Your task to perform on an android device: turn smart compose on in the gmail app Image 0: 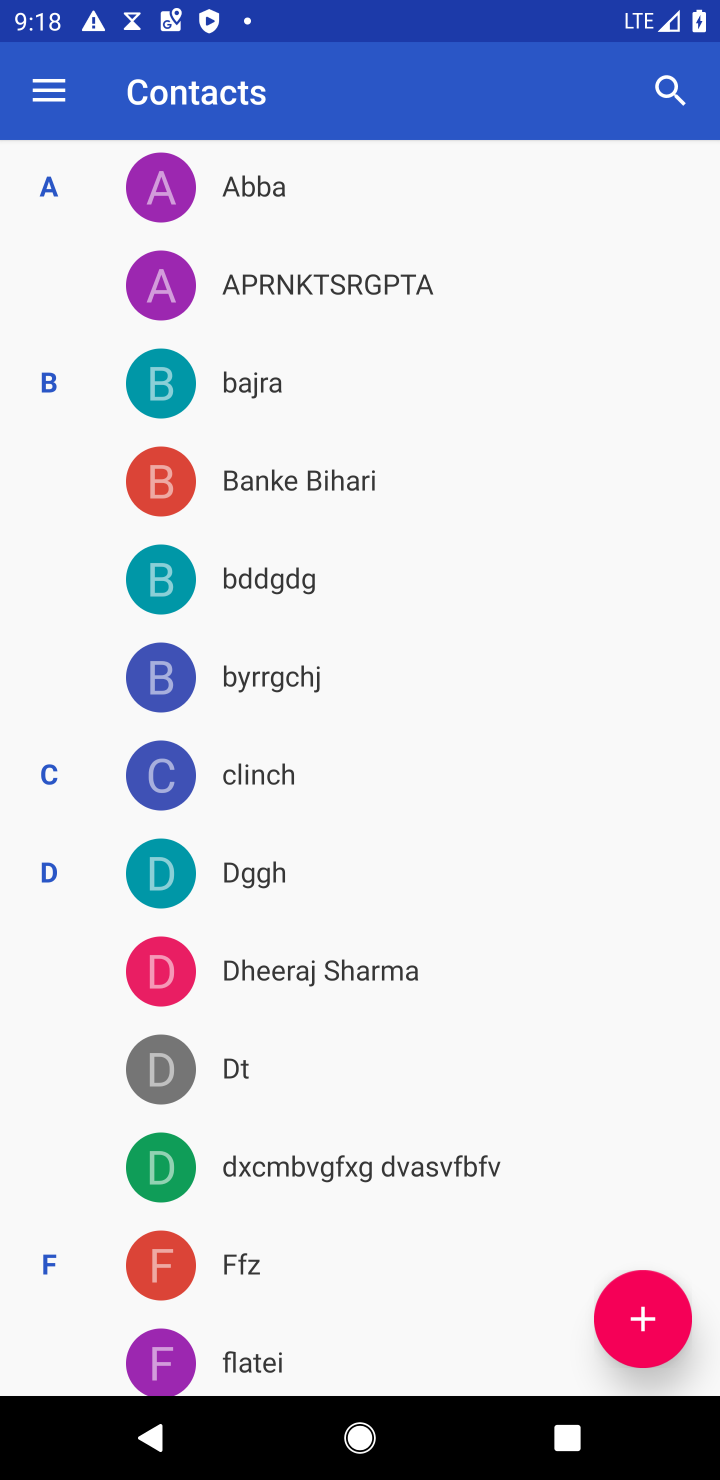
Step 0: press back button
Your task to perform on an android device: turn smart compose on in the gmail app Image 1: 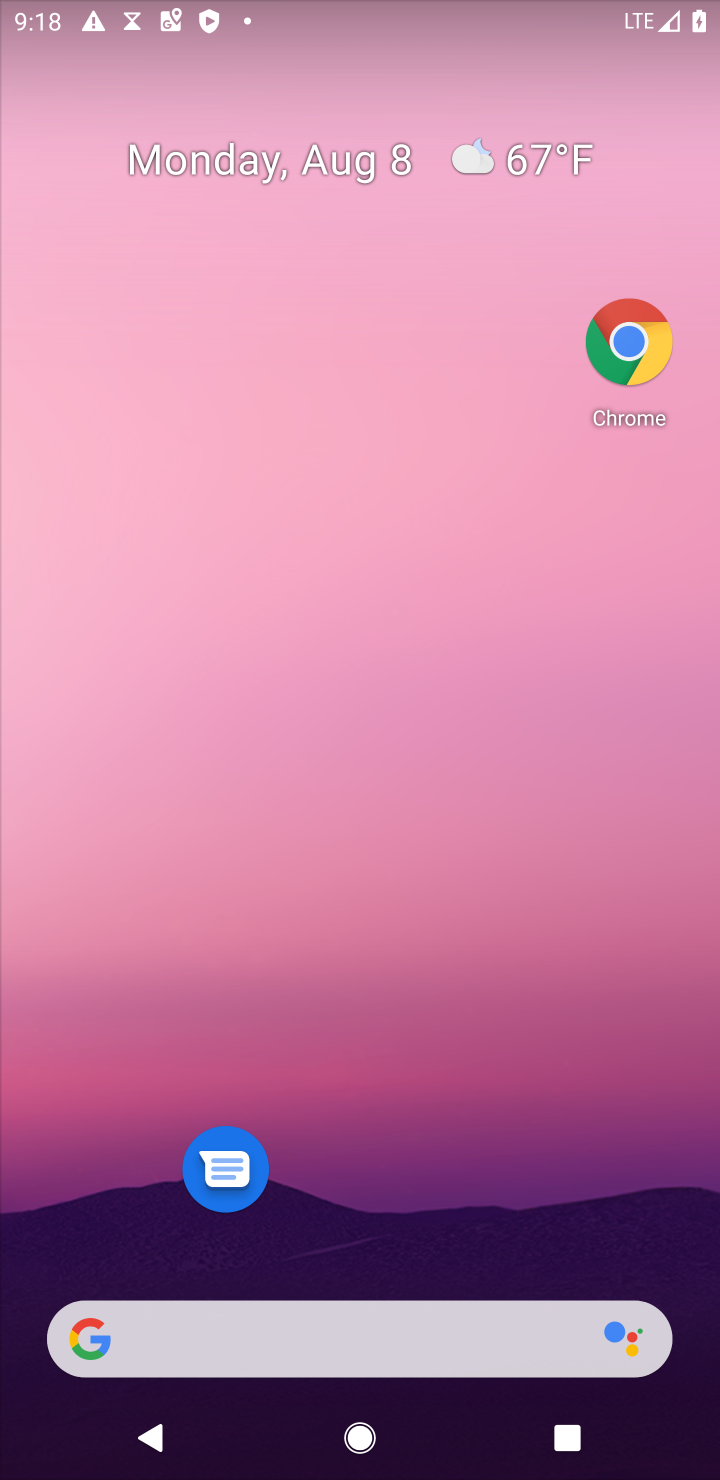
Step 1: drag from (430, 1163) to (546, 230)
Your task to perform on an android device: turn smart compose on in the gmail app Image 2: 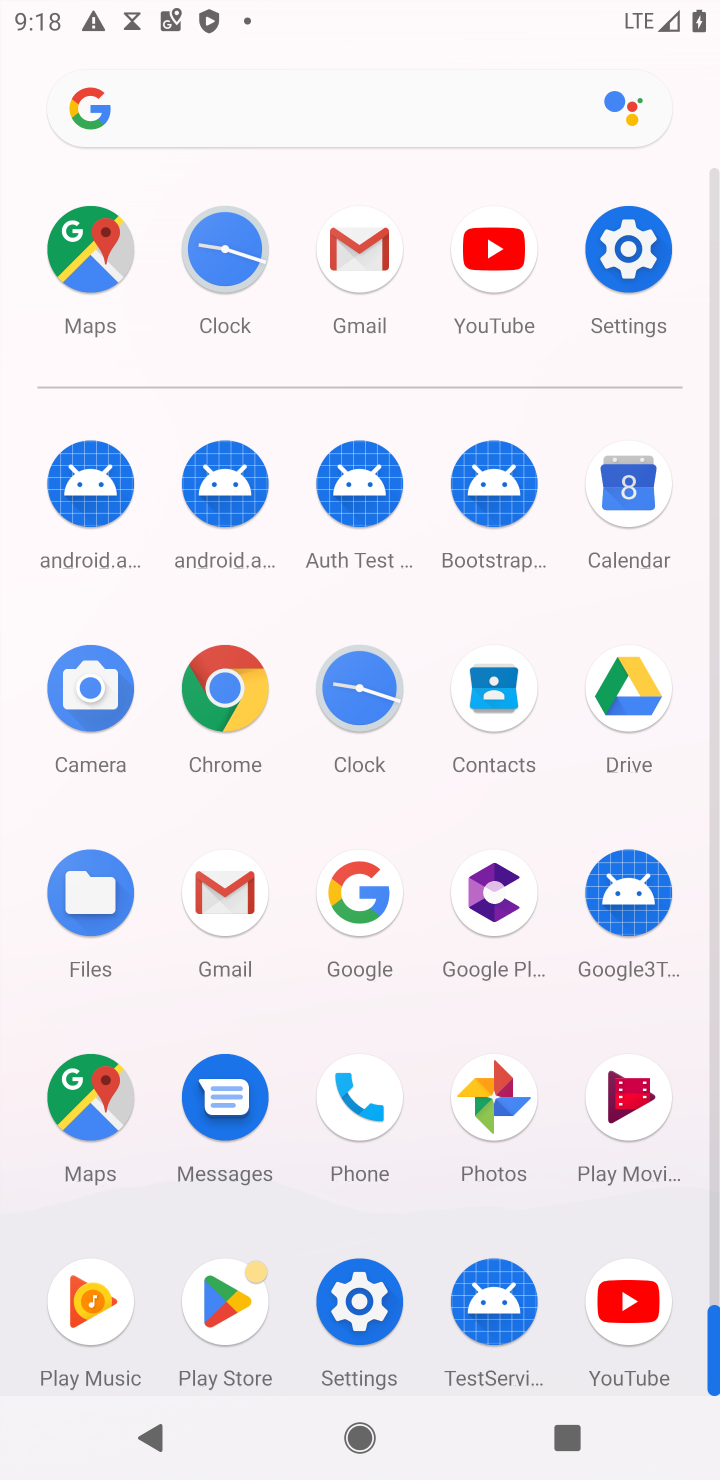
Step 2: click (233, 888)
Your task to perform on an android device: turn smart compose on in the gmail app Image 3: 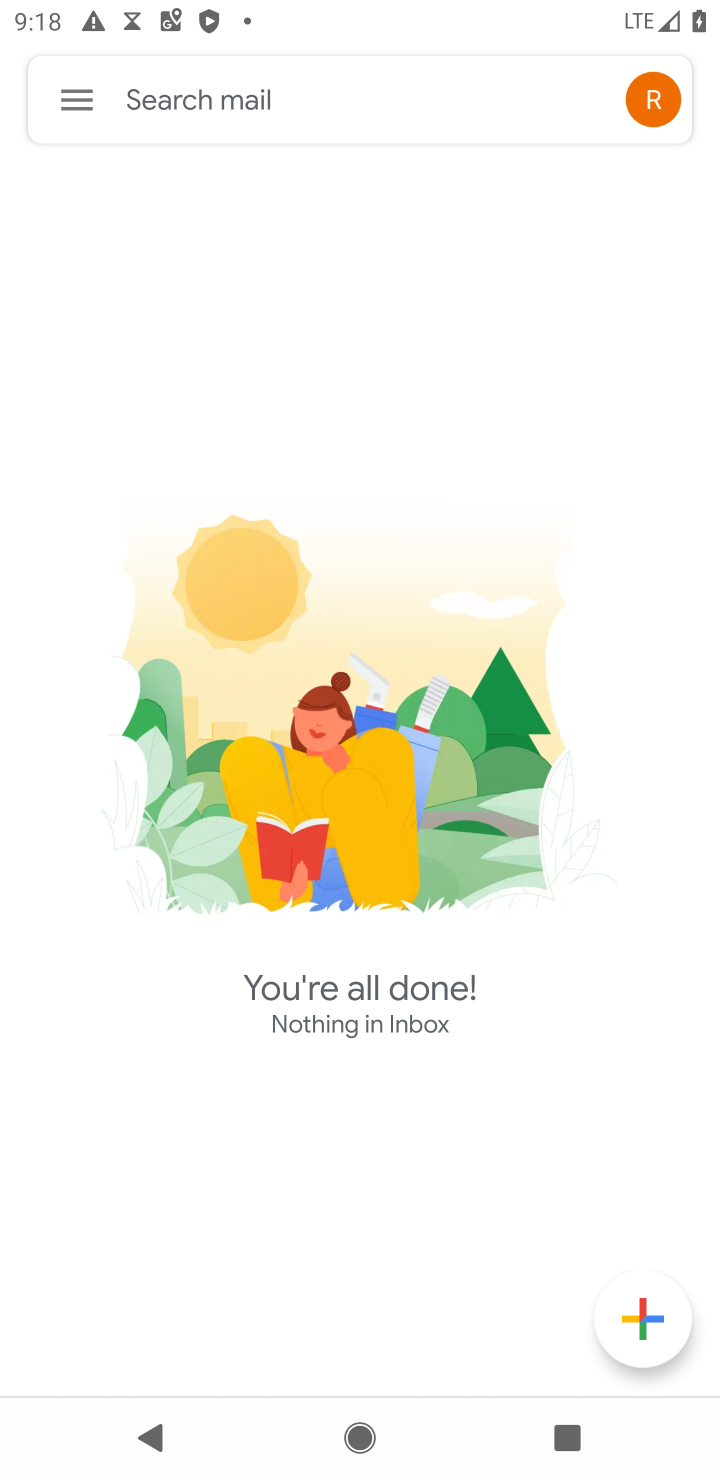
Step 3: click (67, 86)
Your task to perform on an android device: turn smart compose on in the gmail app Image 4: 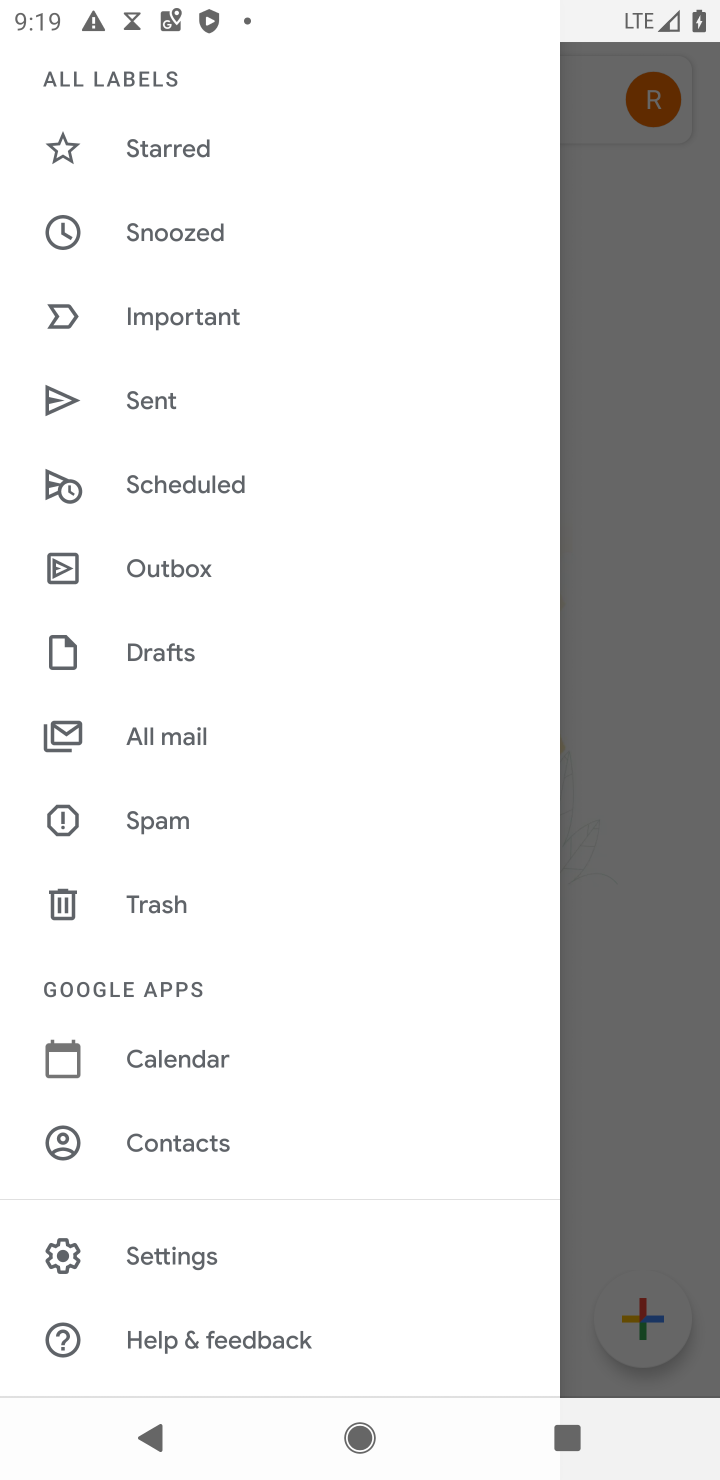
Step 4: click (170, 1257)
Your task to perform on an android device: turn smart compose on in the gmail app Image 5: 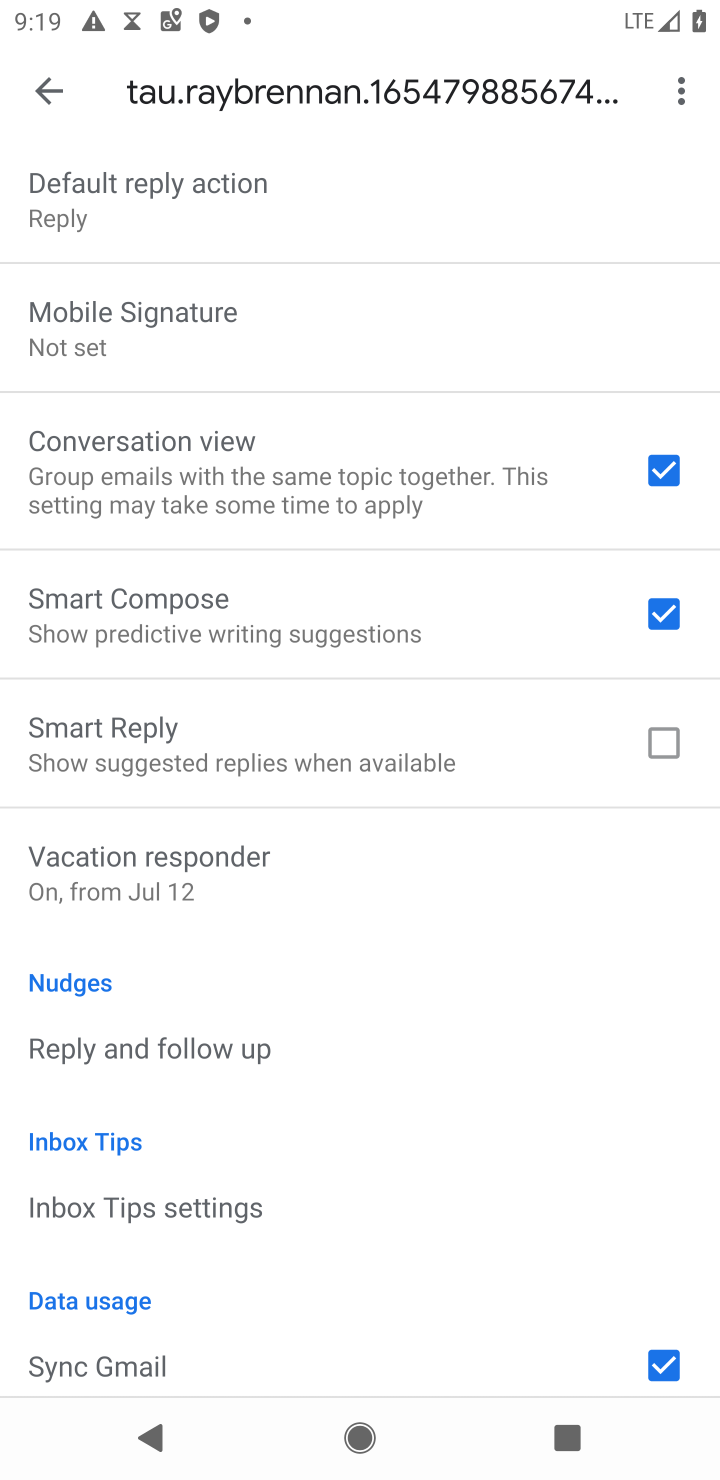
Step 5: task complete